Your task to perform on an android device: remove spam from my inbox in the gmail app Image 0: 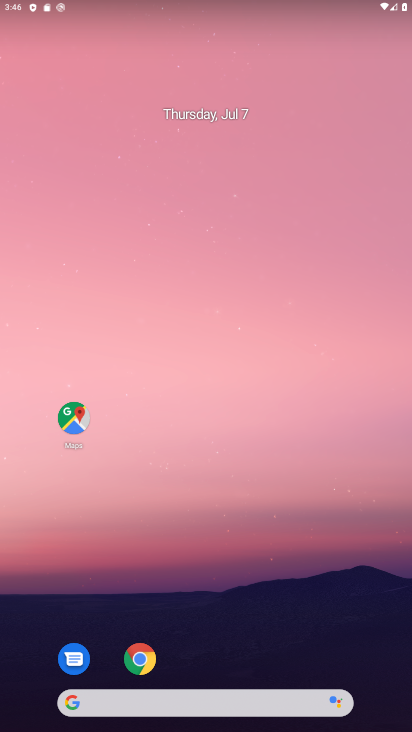
Step 0: drag from (218, 560) to (260, 128)
Your task to perform on an android device: remove spam from my inbox in the gmail app Image 1: 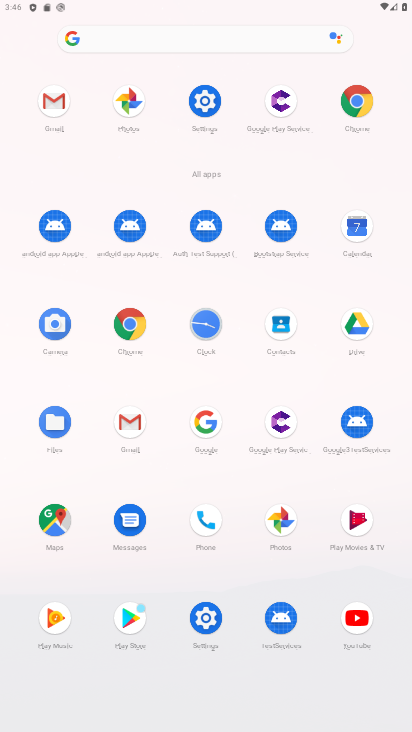
Step 1: click (133, 433)
Your task to perform on an android device: remove spam from my inbox in the gmail app Image 2: 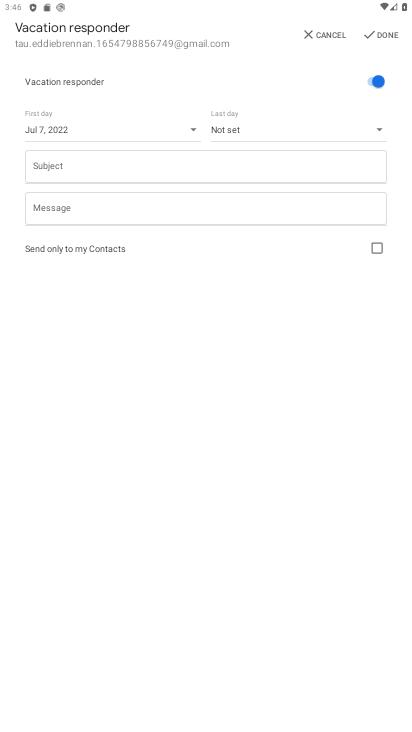
Step 2: press back button
Your task to perform on an android device: remove spam from my inbox in the gmail app Image 3: 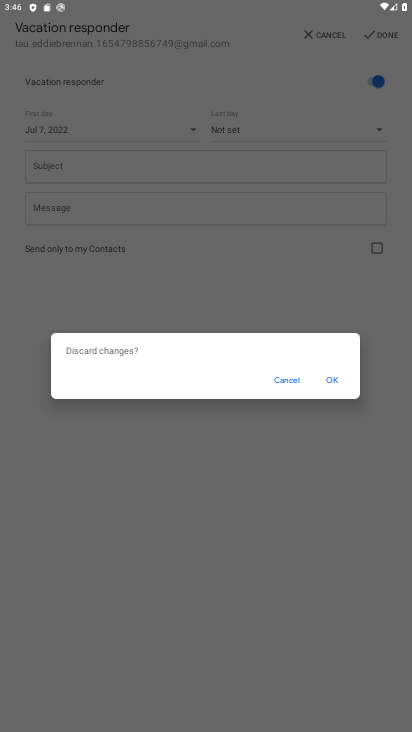
Step 3: press back button
Your task to perform on an android device: remove spam from my inbox in the gmail app Image 4: 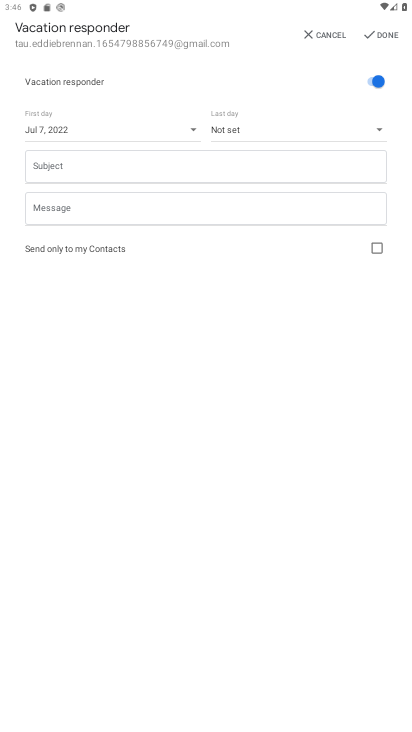
Step 4: press home button
Your task to perform on an android device: remove spam from my inbox in the gmail app Image 5: 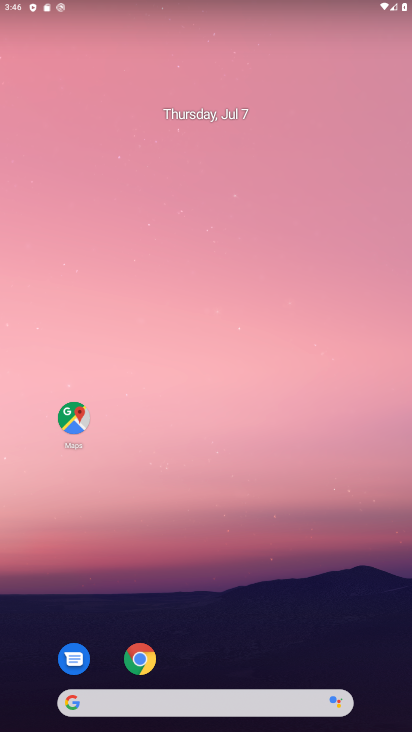
Step 5: drag from (266, 648) to (282, 1)
Your task to perform on an android device: remove spam from my inbox in the gmail app Image 6: 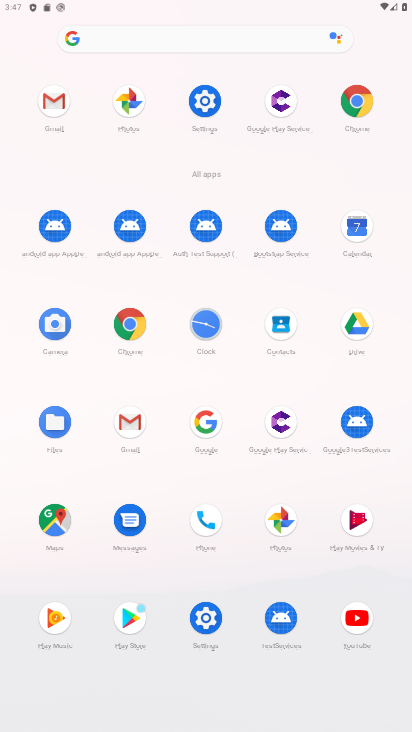
Step 6: click (130, 415)
Your task to perform on an android device: remove spam from my inbox in the gmail app Image 7: 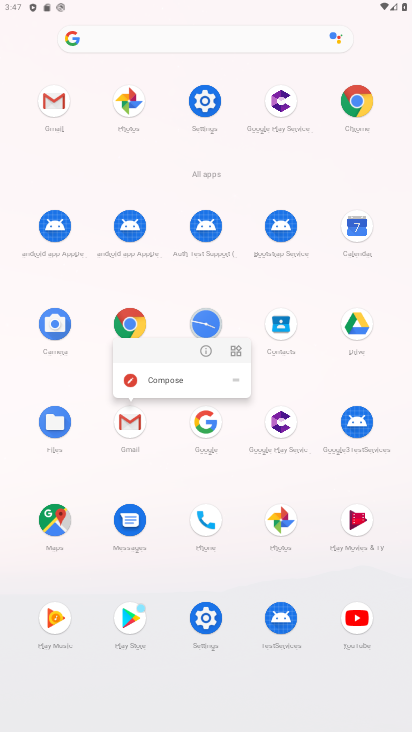
Step 7: click (133, 423)
Your task to perform on an android device: remove spam from my inbox in the gmail app Image 8: 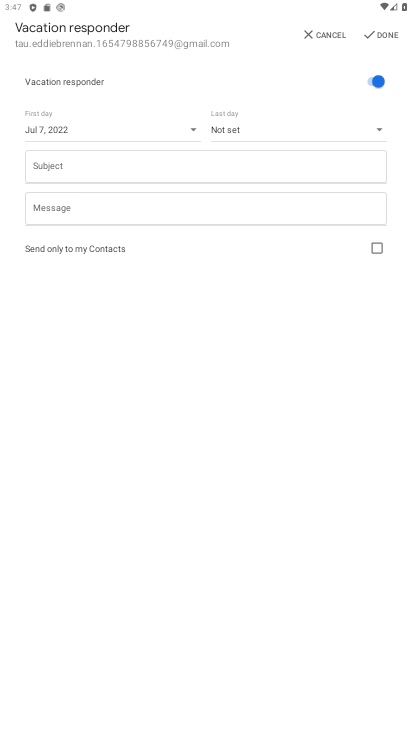
Step 8: press back button
Your task to perform on an android device: remove spam from my inbox in the gmail app Image 9: 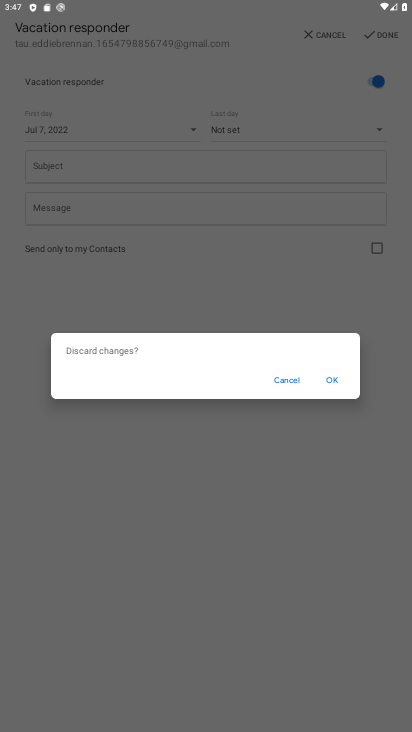
Step 9: click (332, 379)
Your task to perform on an android device: remove spam from my inbox in the gmail app Image 10: 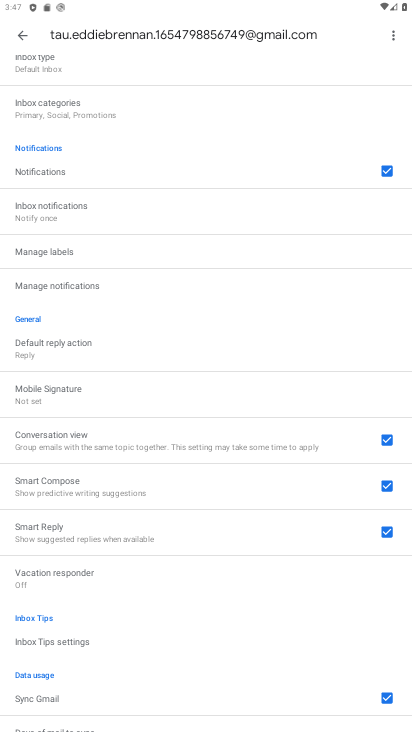
Step 10: click (21, 33)
Your task to perform on an android device: remove spam from my inbox in the gmail app Image 11: 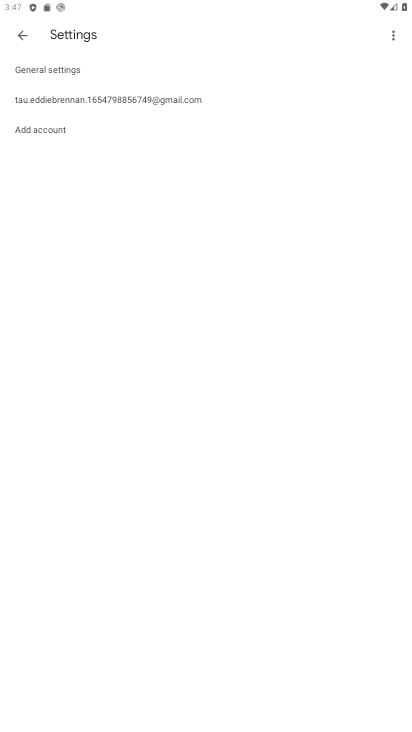
Step 11: click (20, 33)
Your task to perform on an android device: remove spam from my inbox in the gmail app Image 12: 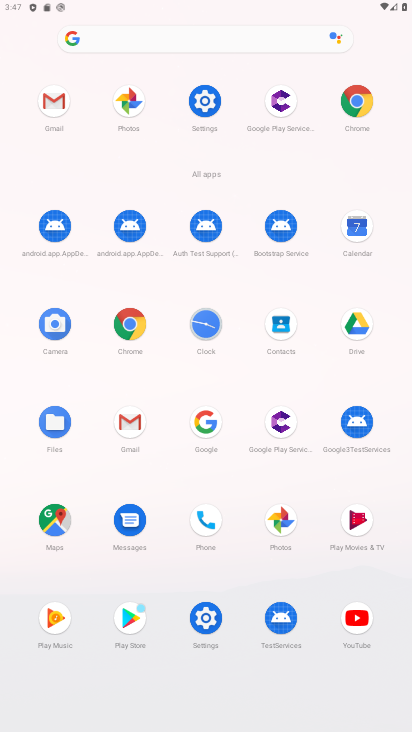
Step 12: click (128, 413)
Your task to perform on an android device: remove spam from my inbox in the gmail app Image 13: 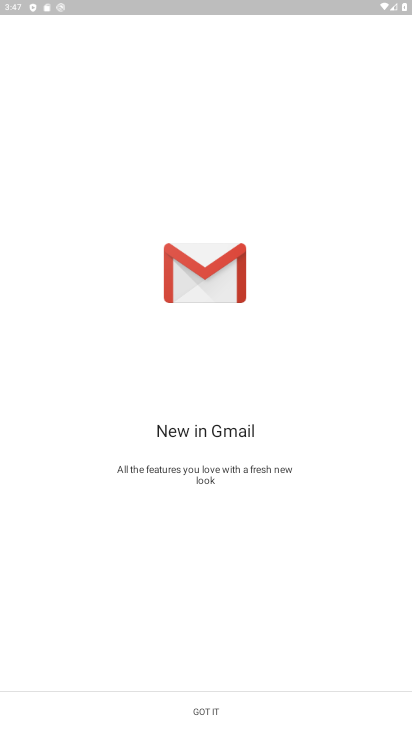
Step 13: click (239, 703)
Your task to perform on an android device: remove spam from my inbox in the gmail app Image 14: 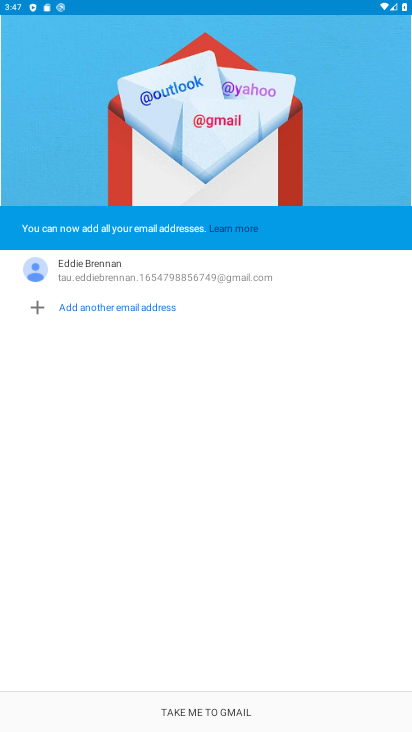
Step 14: click (235, 705)
Your task to perform on an android device: remove spam from my inbox in the gmail app Image 15: 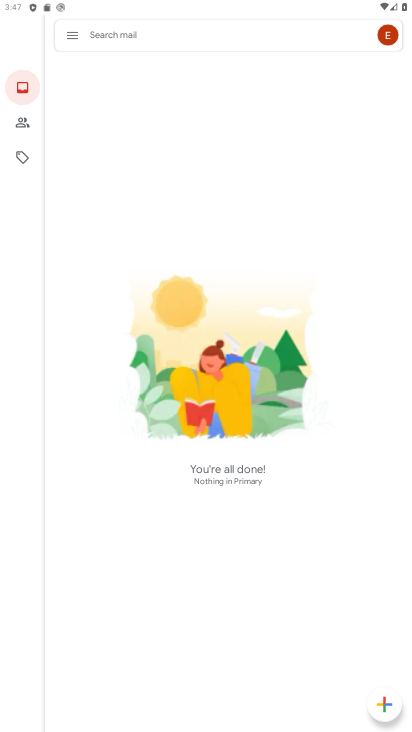
Step 15: click (63, 38)
Your task to perform on an android device: remove spam from my inbox in the gmail app Image 16: 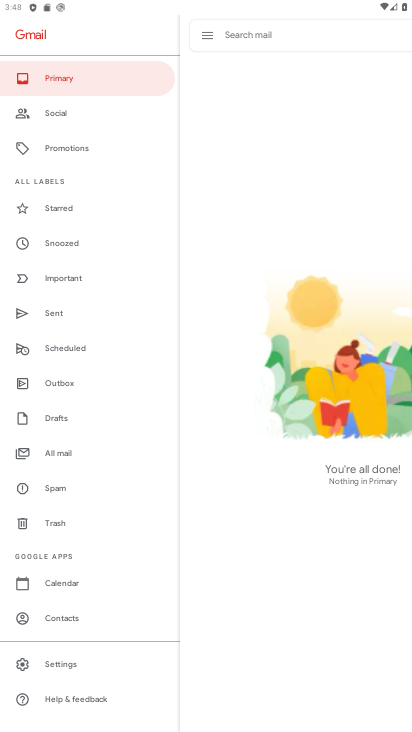
Step 16: click (50, 489)
Your task to perform on an android device: remove spam from my inbox in the gmail app Image 17: 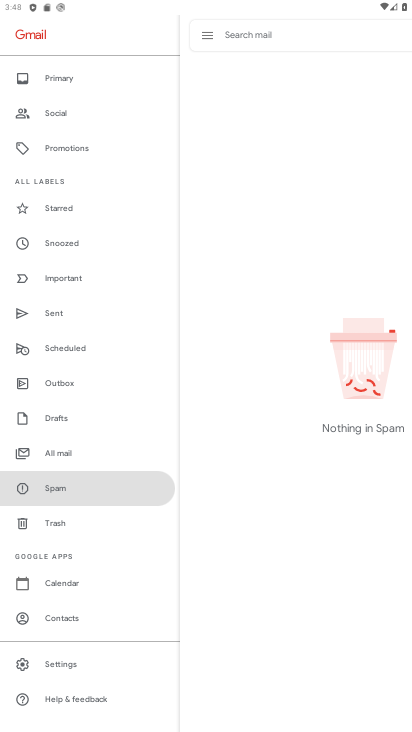
Step 17: task complete